Your task to perform on an android device: Go to network settings Image 0: 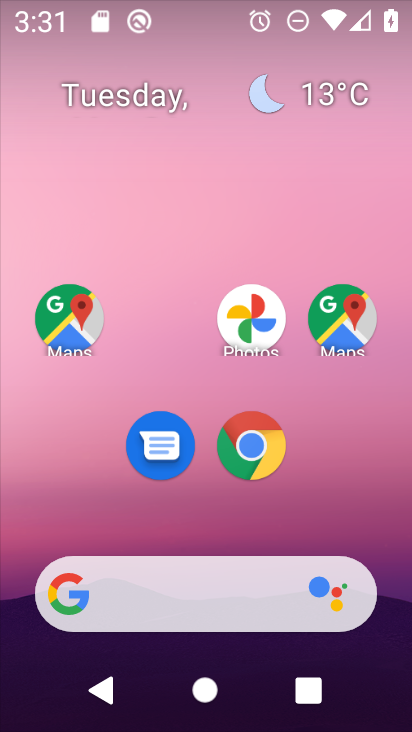
Step 0: drag from (383, 510) to (378, 200)
Your task to perform on an android device: Go to network settings Image 1: 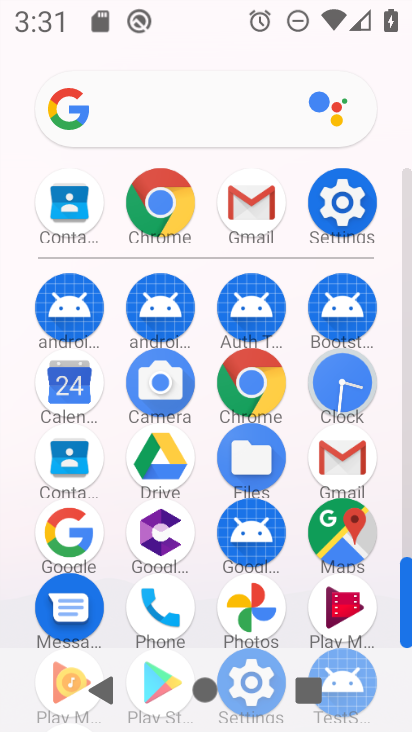
Step 1: click (349, 221)
Your task to perform on an android device: Go to network settings Image 2: 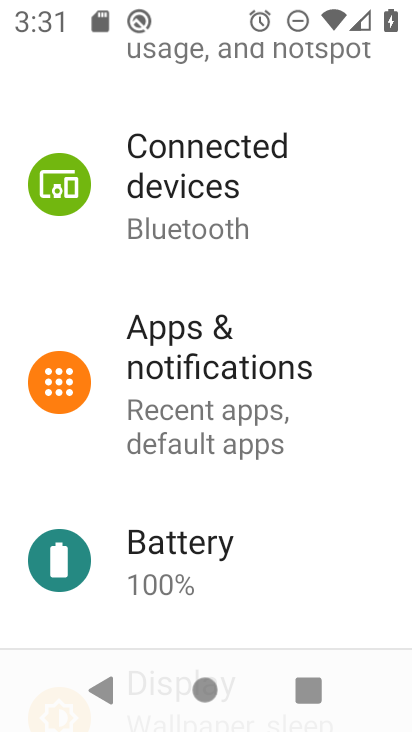
Step 2: drag from (365, 533) to (371, 477)
Your task to perform on an android device: Go to network settings Image 3: 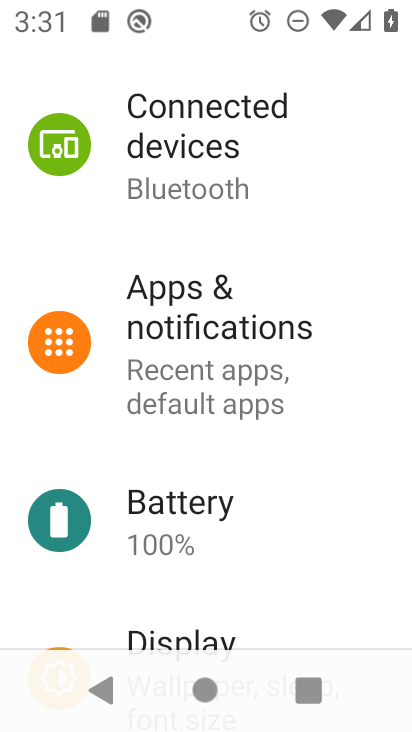
Step 3: drag from (364, 606) to (366, 497)
Your task to perform on an android device: Go to network settings Image 4: 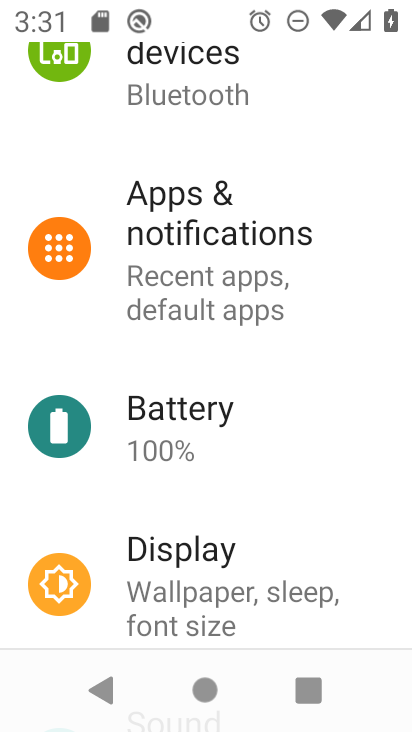
Step 4: drag from (366, 618) to (371, 512)
Your task to perform on an android device: Go to network settings Image 5: 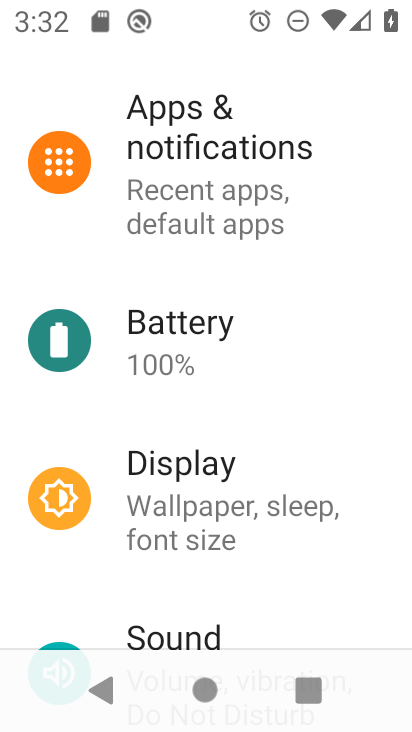
Step 5: drag from (363, 621) to (372, 423)
Your task to perform on an android device: Go to network settings Image 6: 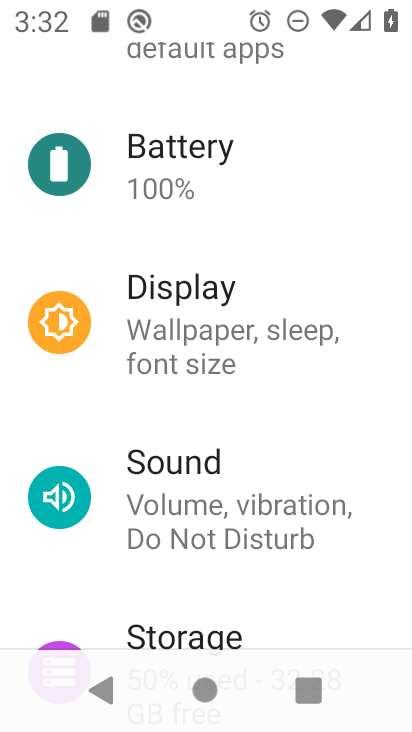
Step 6: drag from (355, 590) to (366, 463)
Your task to perform on an android device: Go to network settings Image 7: 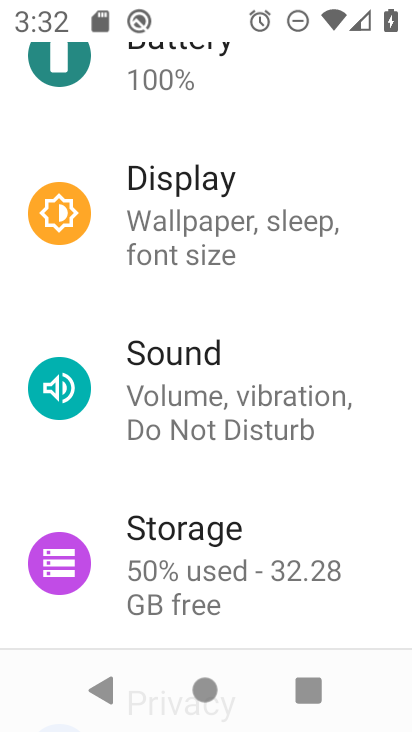
Step 7: drag from (357, 571) to (364, 454)
Your task to perform on an android device: Go to network settings Image 8: 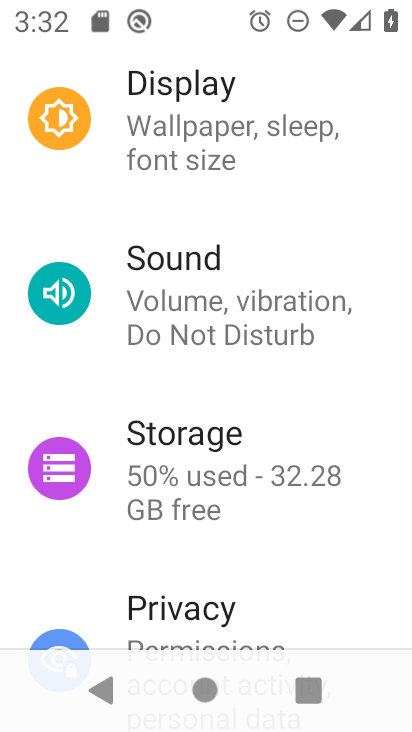
Step 8: drag from (364, 629) to (363, 506)
Your task to perform on an android device: Go to network settings Image 9: 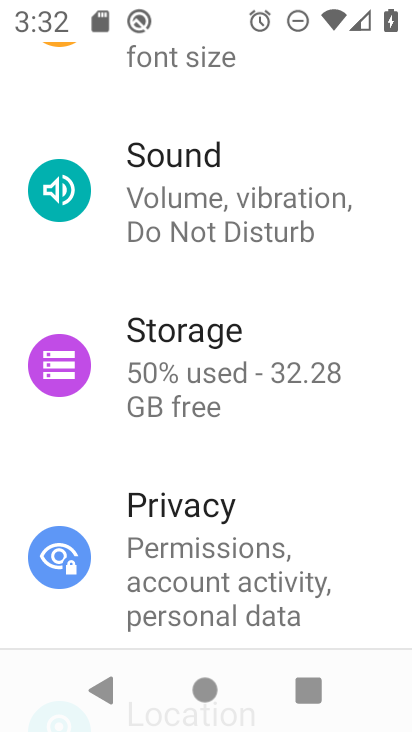
Step 9: drag from (361, 610) to (363, 493)
Your task to perform on an android device: Go to network settings Image 10: 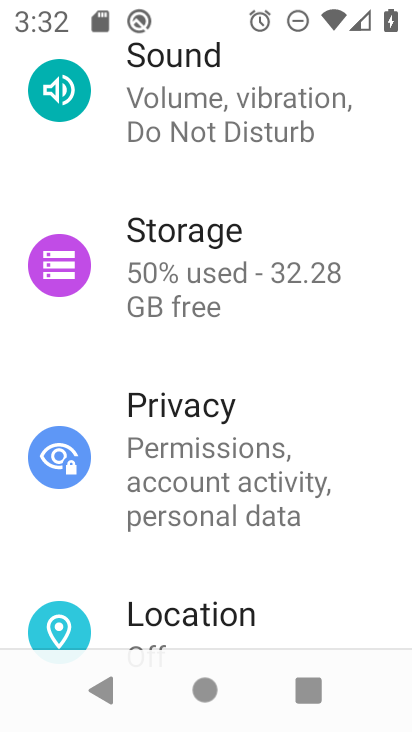
Step 10: drag from (372, 608) to (373, 475)
Your task to perform on an android device: Go to network settings Image 11: 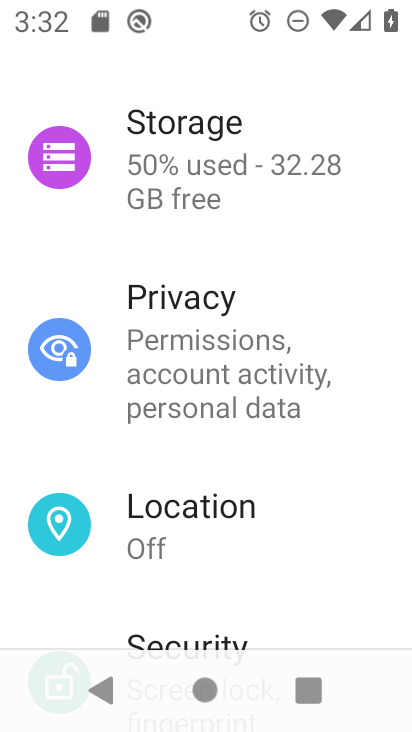
Step 11: drag from (370, 612) to (370, 268)
Your task to perform on an android device: Go to network settings Image 12: 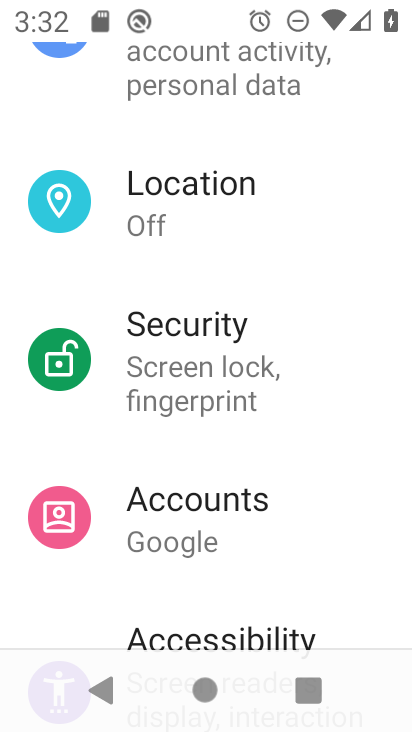
Step 12: drag from (360, 566) to (361, 386)
Your task to perform on an android device: Go to network settings Image 13: 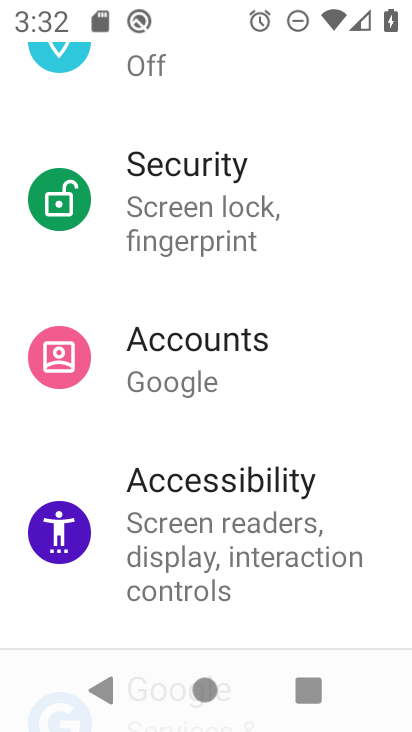
Step 13: drag from (369, 593) to (375, 397)
Your task to perform on an android device: Go to network settings Image 14: 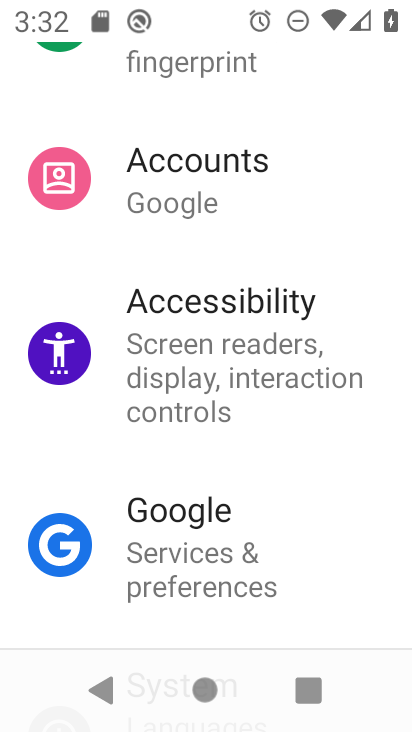
Step 14: drag from (378, 579) to (379, 457)
Your task to perform on an android device: Go to network settings Image 15: 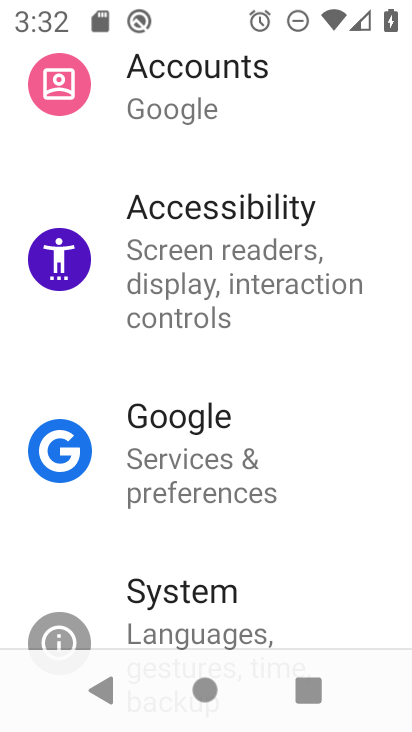
Step 15: drag from (384, 366) to (377, 444)
Your task to perform on an android device: Go to network settings Image 16: 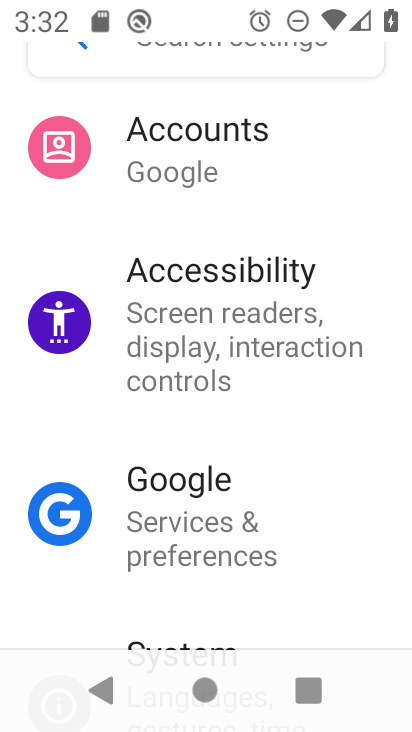
Step 16: drag from (378, 351) to (379, 425)
Your task to perform on an android device: Go to network settings Image 17: 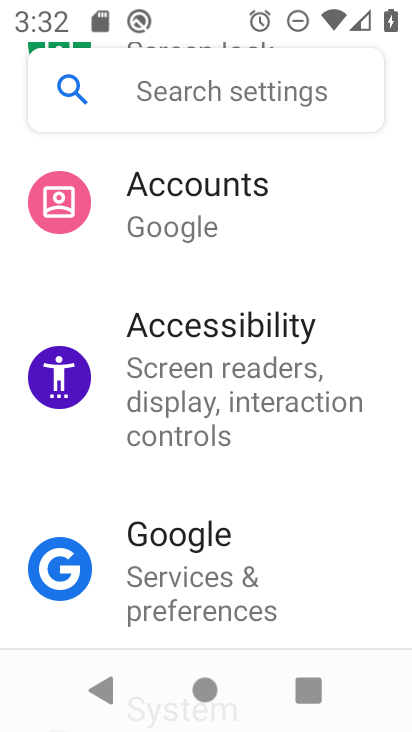
Step 17: drag from (378, 351) to (378, 423)
Your task to perform on an android device: Go to network settings Image 18: 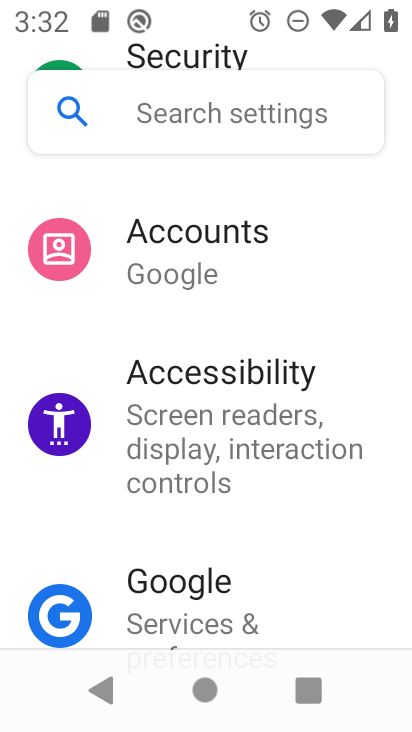
Step 18: drag from (384, 350) to (387, 425)
Your task to perform on an android device: Go to network settings Image 19: 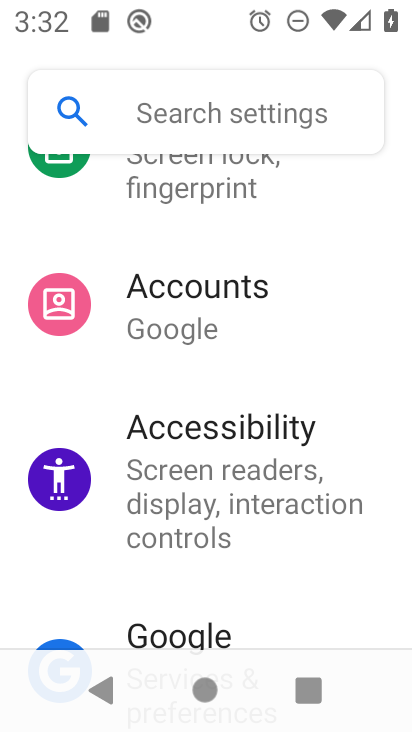
Step 19: drag from (379, 349) to (379, 415)
Your task to perform on an android device: Go to network settings Image 20: 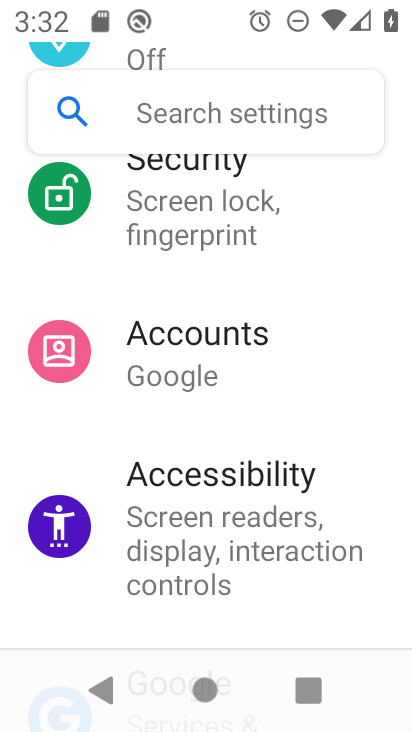
Step 20: drag from (377, 324) to (371, 421)
Your task to perform on an android device: Go to network settings Image 21: 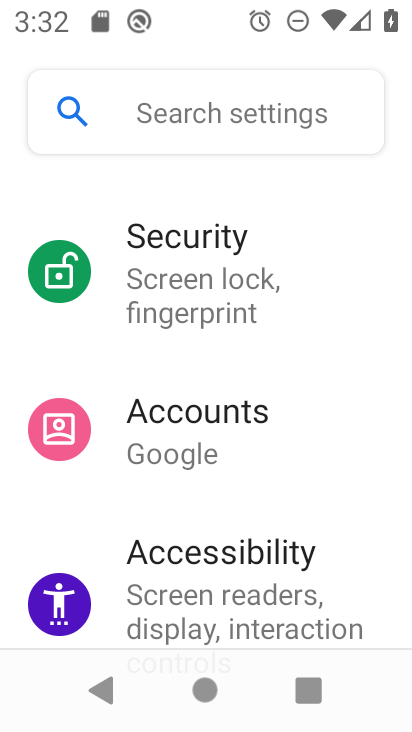
Step 21: drag from (367, 314) to (366, 415)
Your task to perform on an android device: Go to network settings Image 22: 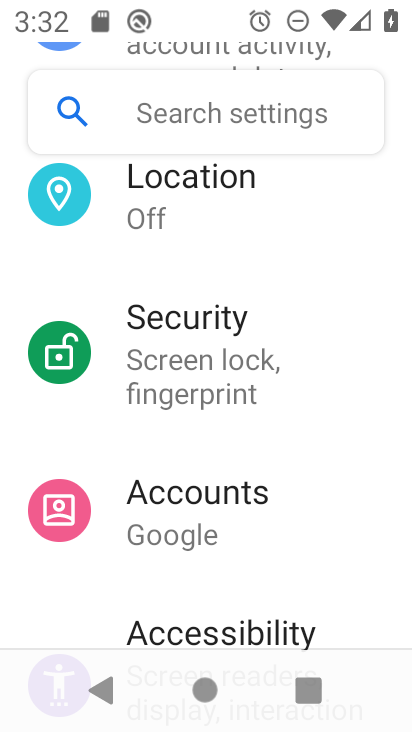
Step 22: drag from (366, 310) to (365, 424)
Your task to perform on an android device: Go to network settings Image 23: 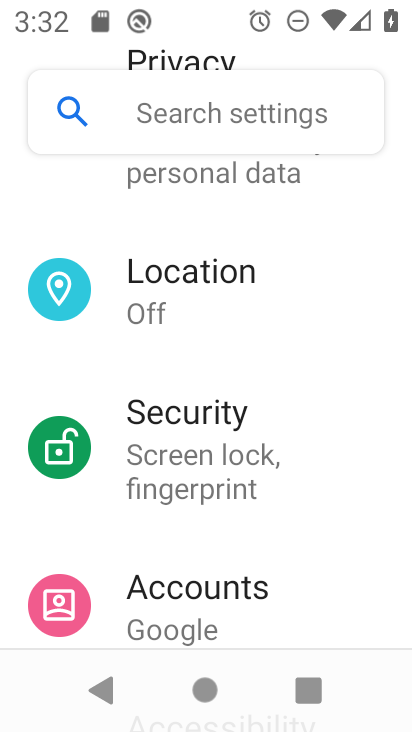
Step 23: drag from (367, 264) to (370, 387)
Your task to perform on an android device: Go to network settings Image 24: 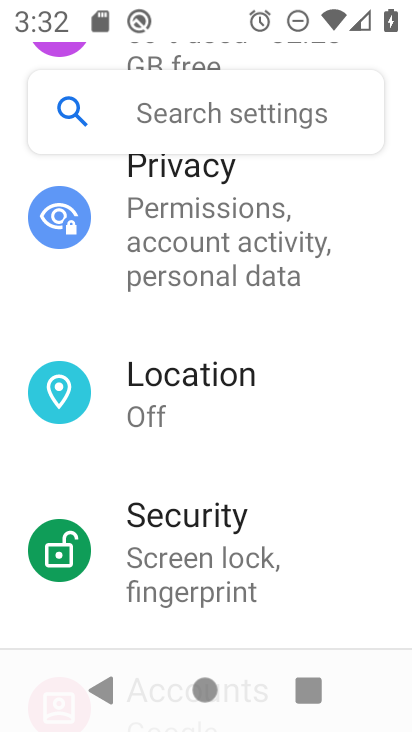
Step 24: drag from (364, 255) to (364, 375)
Your task to perform on an android device: Go to network settings Image 25: 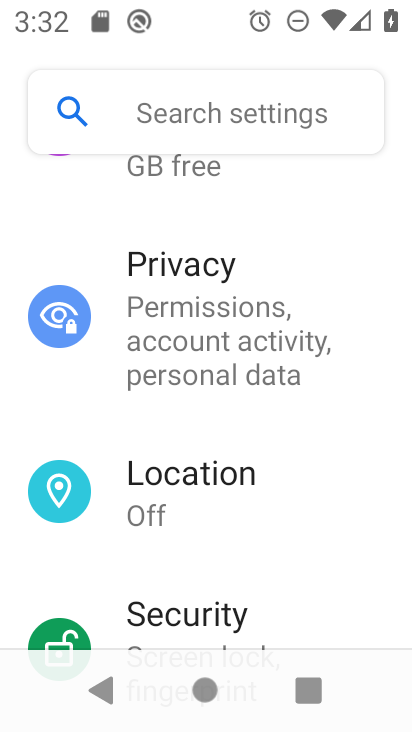
Step 25: drag from (364, 265) to (363, 390)
Your task to perform on an android device: Go to network settings Image 26: 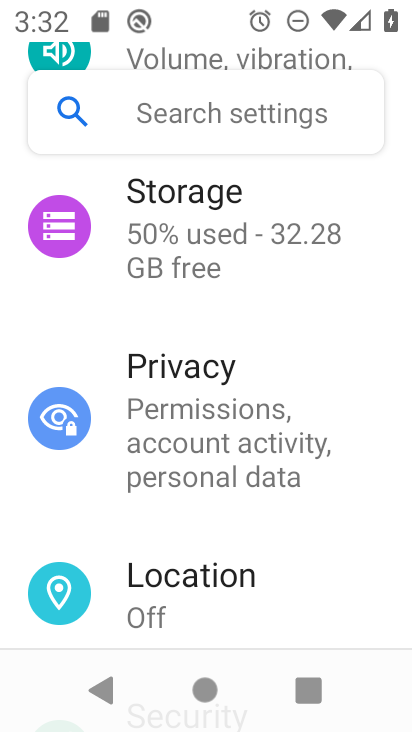
Step 26: drag from (372, 231) to (374, 363)
Your task to perform on an android device: Go to network settings Image 27: 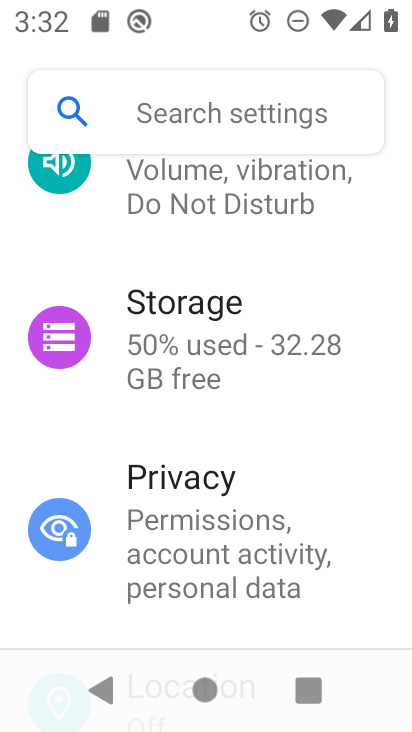
Step 27: drag from (367, 215) to (366, 351)
Your task to perform on an android device: Go to network settings Image 28: 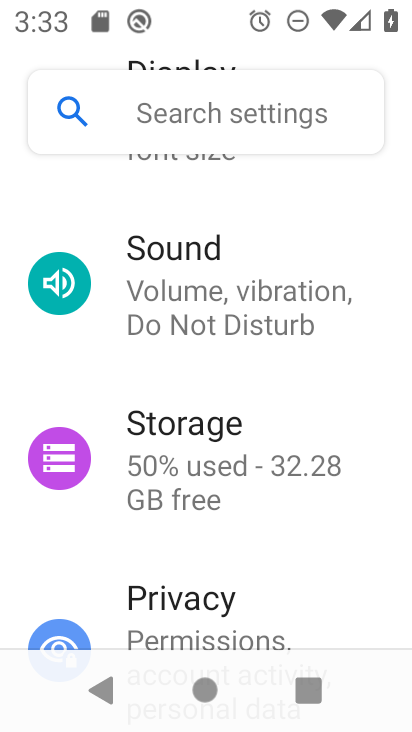
Step 28: drag from (366, 185) to (364, 340)
Your task to perform on an android device: Go to network settings Image 29: 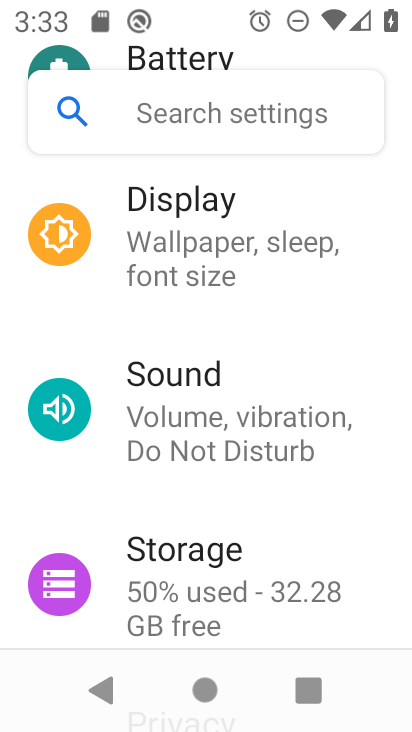
Step 29: drag from (372, 191) to (377, 358)
Your task to perform on an android device: Go to network settings Image 30: 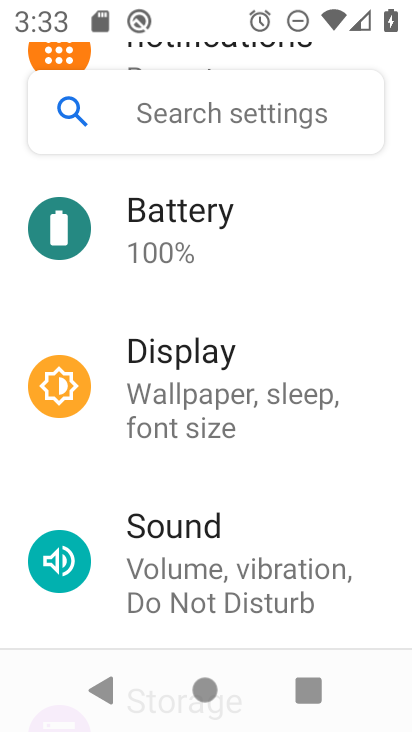
Step 30: drag from (358, 187) to (355, 376)
Your task to perform on an android device: Go to network settings Image 31: 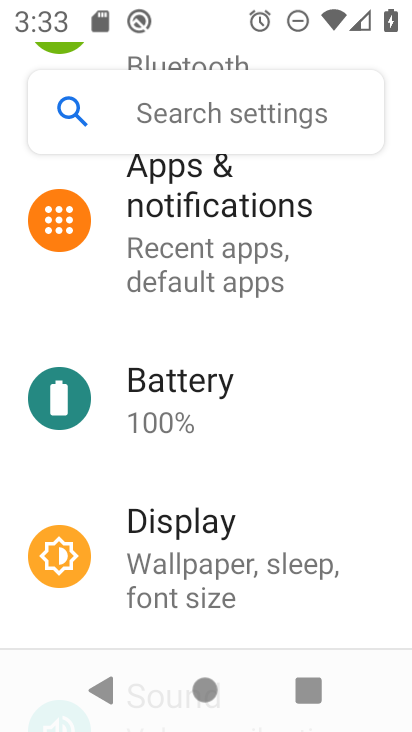
Step 31: drag from (354, 179) to (356, 337)
Your task to perform on an android device: Go to network settings Image 32: 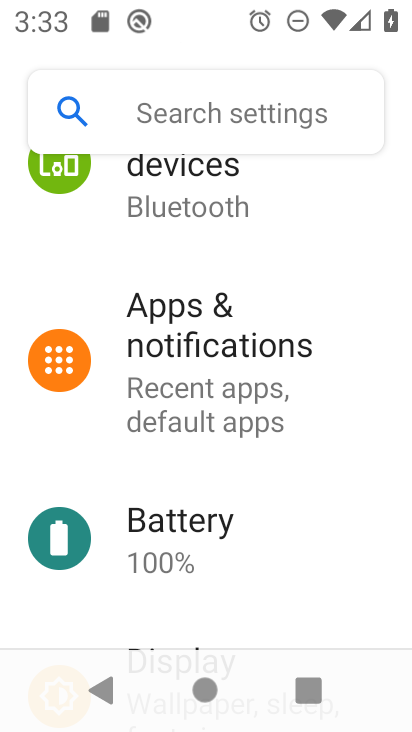
Step 32: drag from (354, 168) to (353, 333)
Your task to perform on an android device: Go to network settings Image 33: 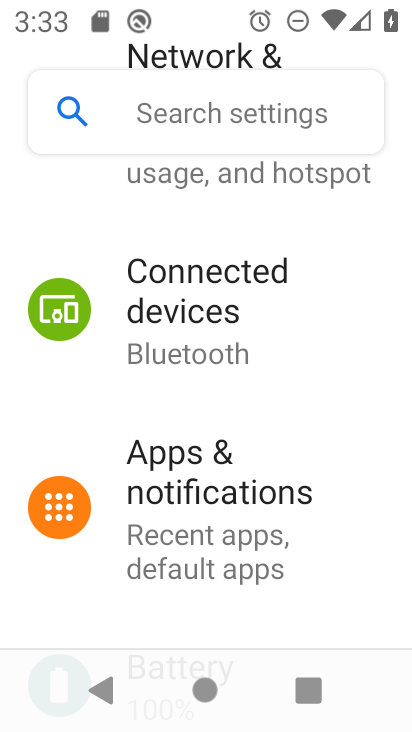
Step 33: drag from (365, 204) to (368, 409)
Your task to perform on an android device: Go to network settings Image 34: 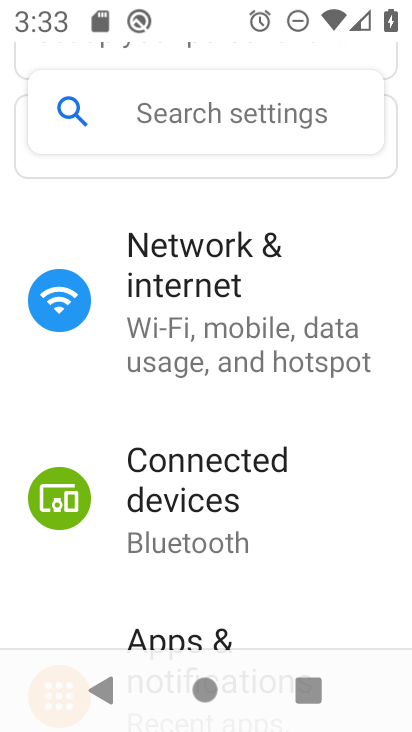
Step 34: click (269, 302)
Your task to perform on an android device: Go to network settings Image 35: 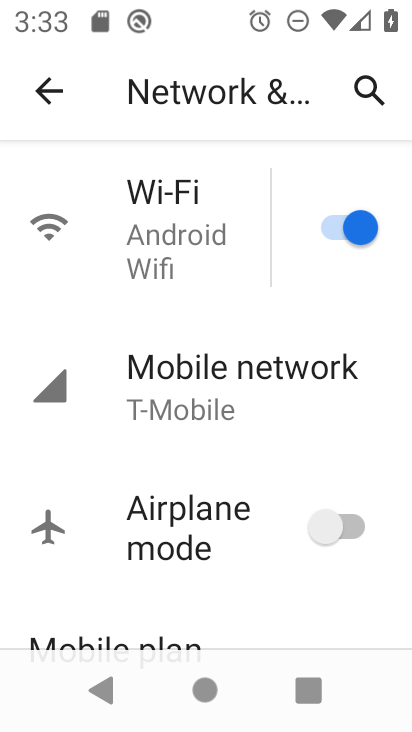
Step 35: task complete